Your task to perform on an android device: Search for vegetarian restaurants on Maps Image 0: 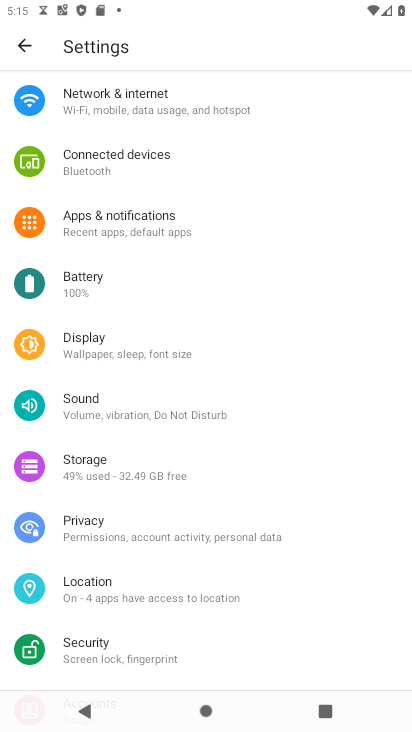
Step 0: press back button
Your task to perform on an android device: Search for vegetarian restaurants on Maps Image 1: 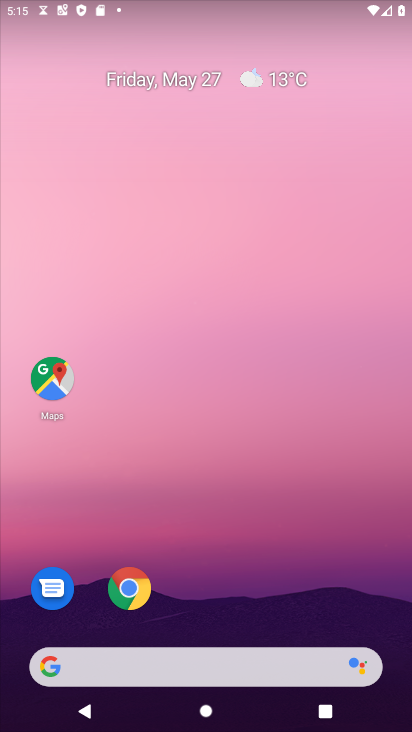
Step 1: click (56, 385)
Your task to perform on an android device: Search for vegetarian restaurants on Maps Image 2: 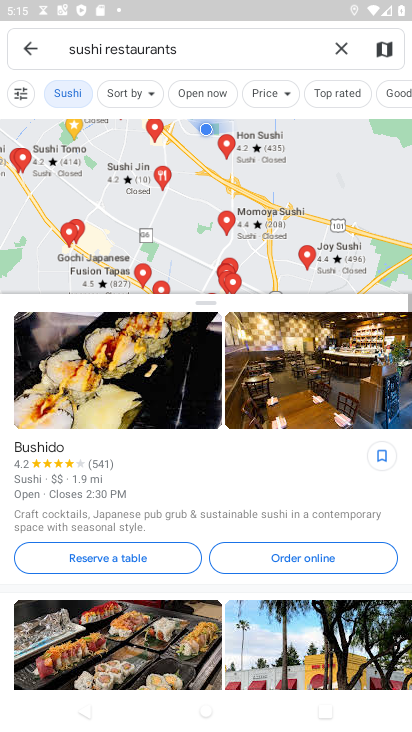
Step 2: click (331, 46)
Your task to perform on an android device: Search for vegetarian restaurants on Maps Image 3: 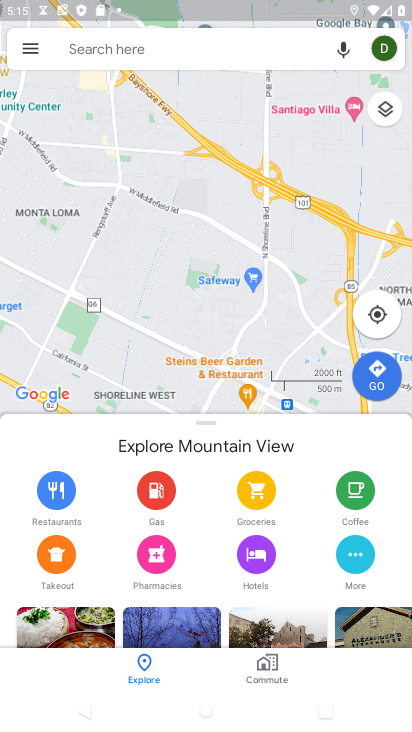
Step 3: click (164, 49)
Your task to perform on an android device: Search for vegetarian restaurants on Maps Image 4: 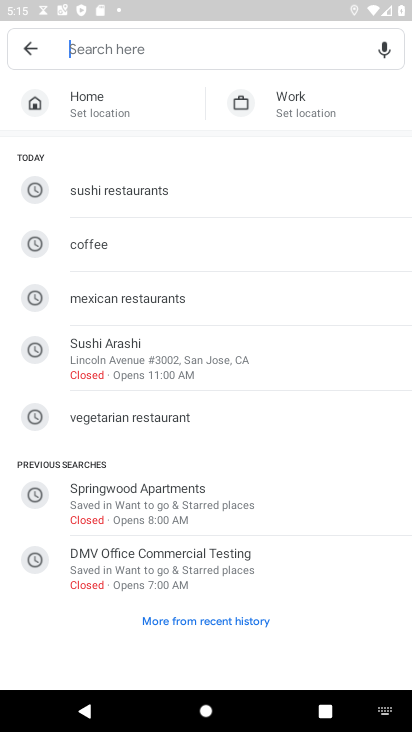
Step 4: click (106, 416)
Your task to perform on an android device: Search for vegetarian restaurants on Maps Image 5: 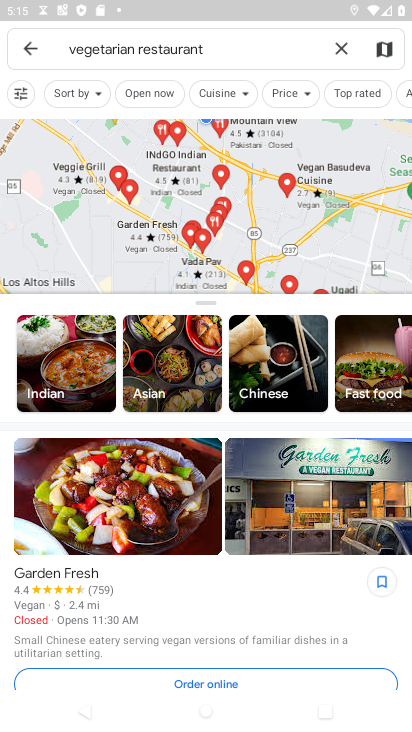
Step 5: task complete